Your task to perform on an android device: Show me the alarms in the clock app Image 0: 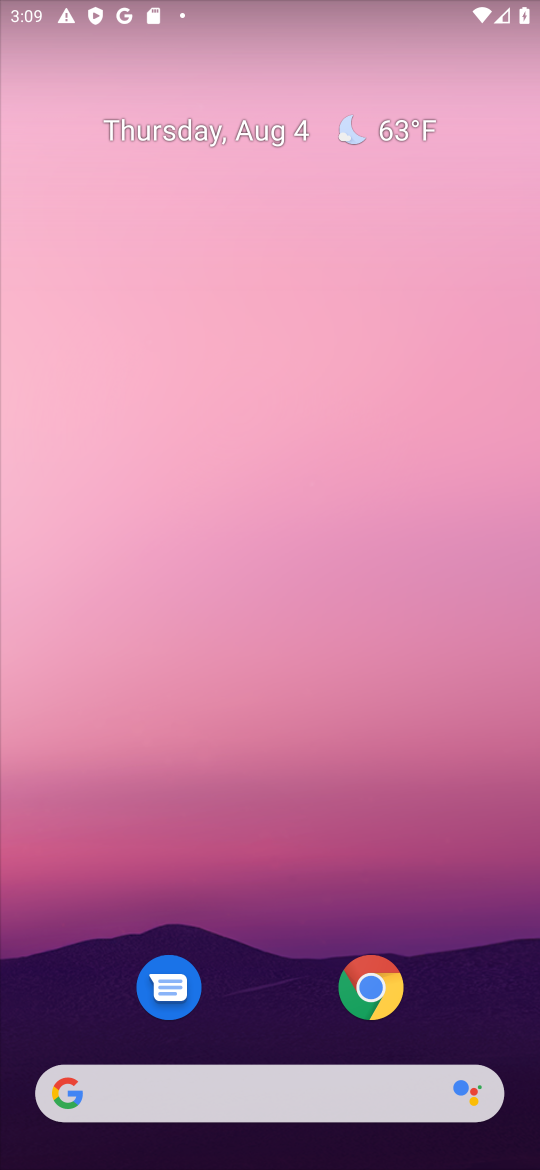
Step 0: drag from (251, 976) to (218, 169)
Your task to perform on an android device: Show me the alarms in the clock app Image 1: 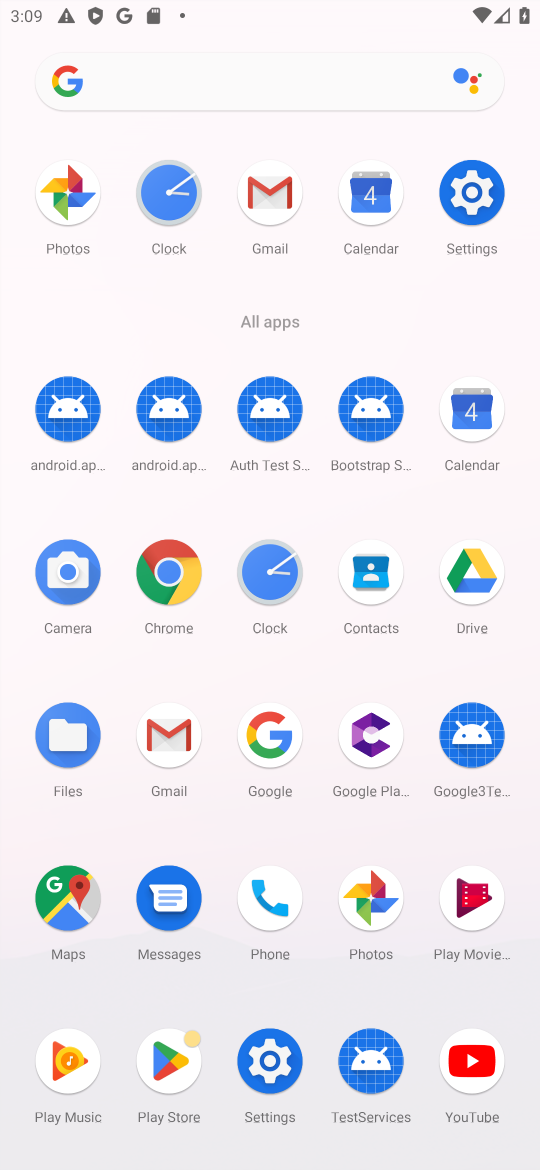
Step 1: click (175, 214)
Your task to perform on an android device: Show me the alarms in the clock app Image 2: 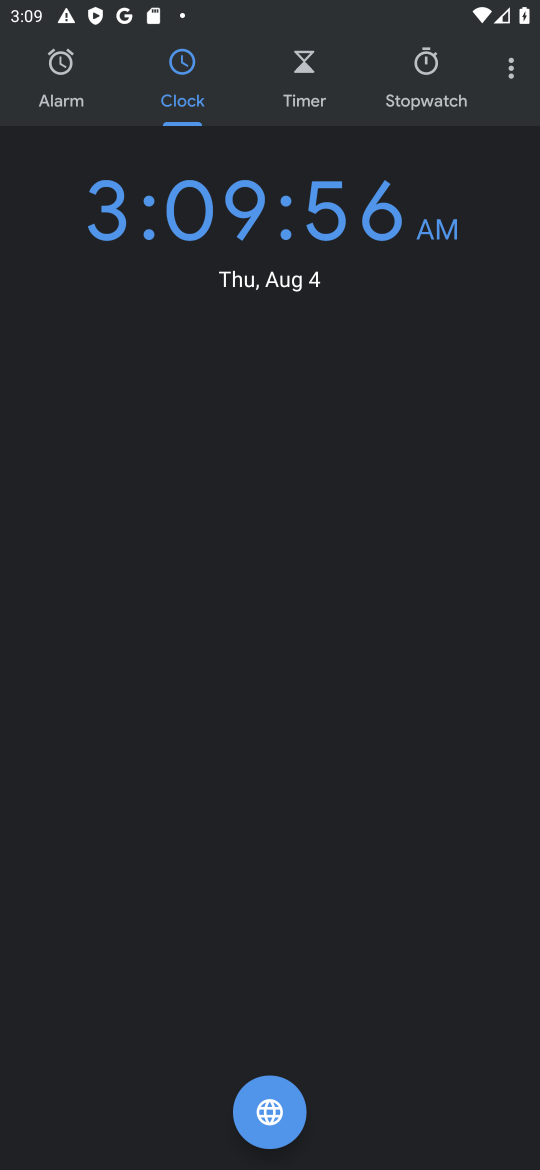
Step 2: click (69, 92)
Your task to perform on an android device: Show me the alarms in the clock app Image 3: 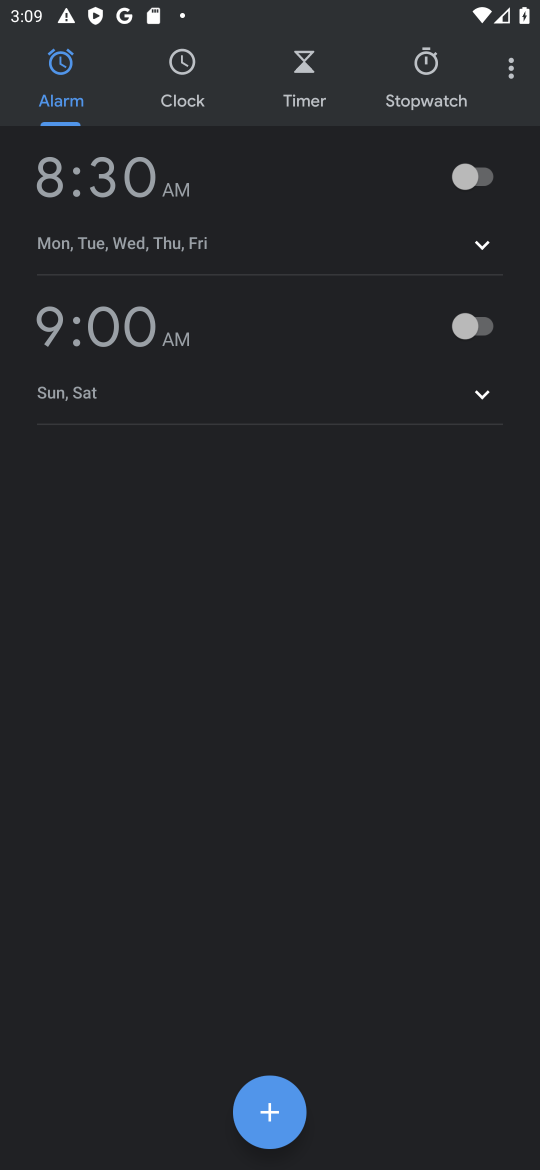
Step 3: task complete